Your task to perform on an android device: change keyboard looks Image 0: 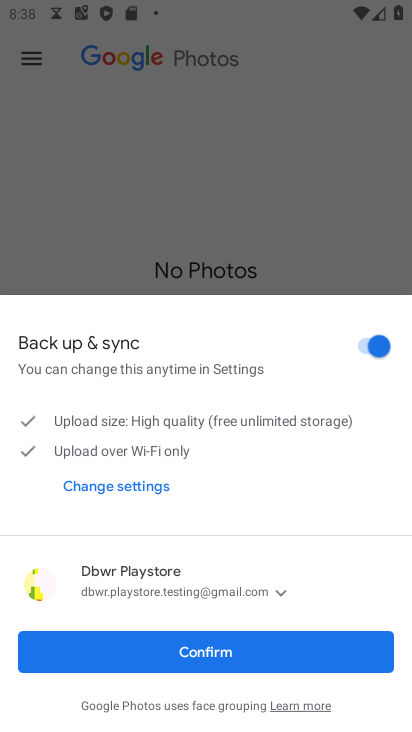
Step 0: press home button
Your task to perform on an android device: change keyboard looks Image 1: 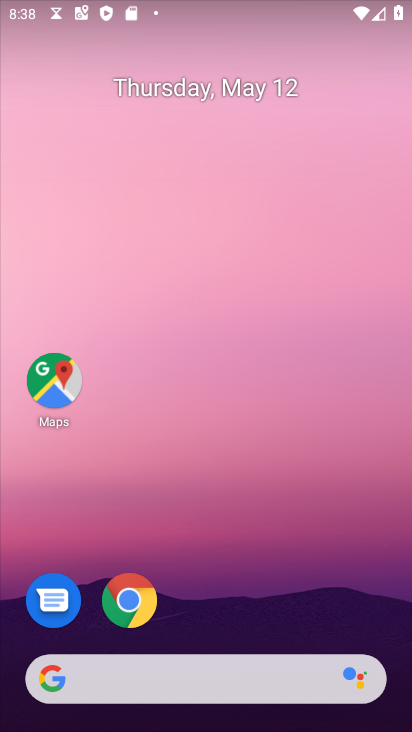
Step 1: drag from (260, 243) to (251, 162)
Your task to perform on an android device: change keyboard looks Image 2: 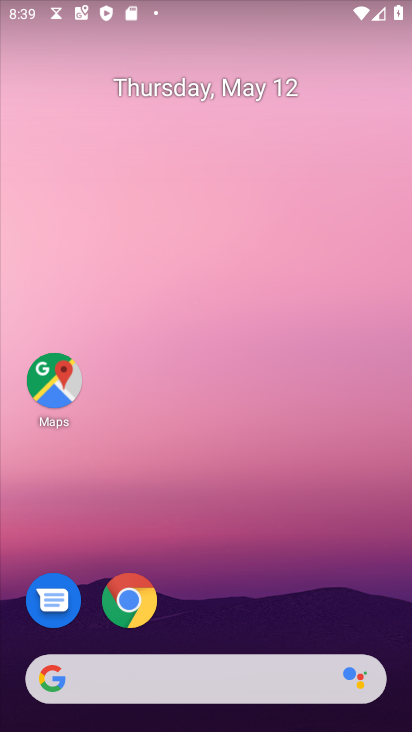
Step 2: drag from (233, 584) to (205, 265)
Your task to perform on an android device: change keyboard looks Image 3: 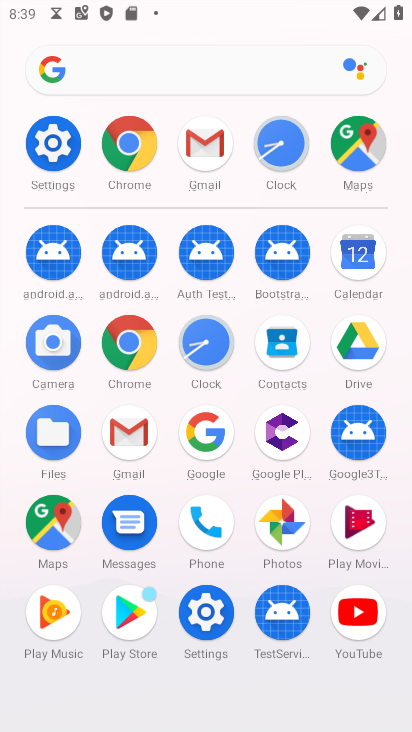
Step 3: drag from (238, 568) to (249, 239)
Your task to perform on an android device: change keyboard looks Image 4: 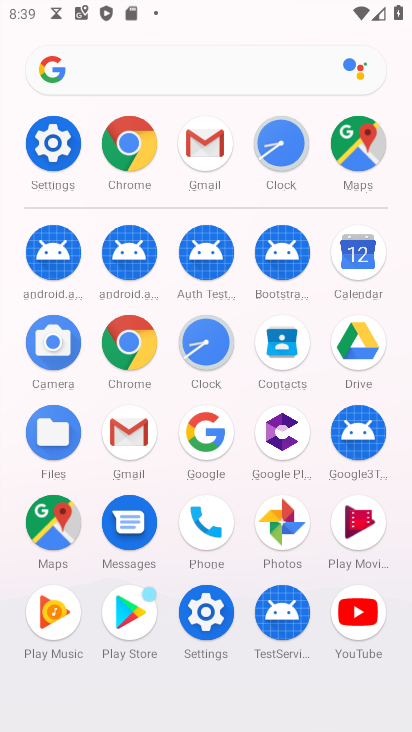
Step 4: click (59, 137)
Your task to perform on an android device: change keyboard looks Image 5: 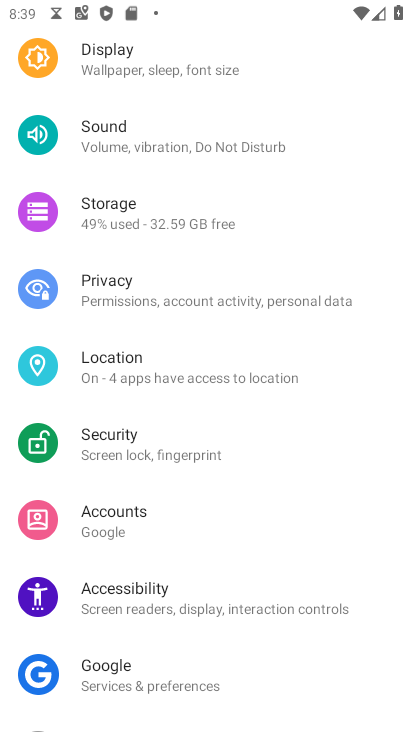
Step 5: drag from (168, 646) to (187, 343)
Your task to perform on an android device: change keyboard looks Image 6: 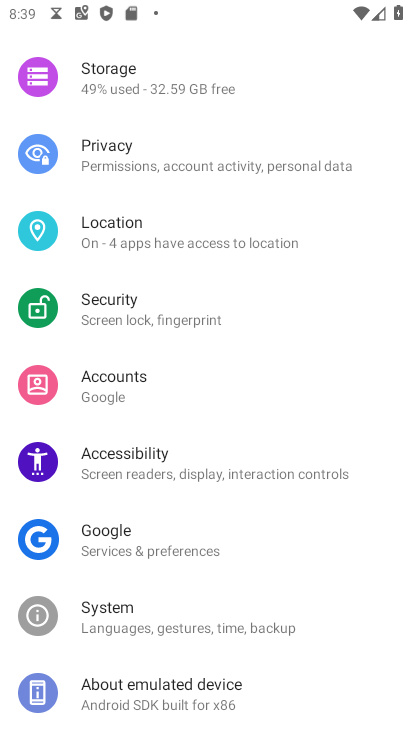
Step 6: click (164, 627)
Your task to perform on an android device: change keyboard looks Image 7: 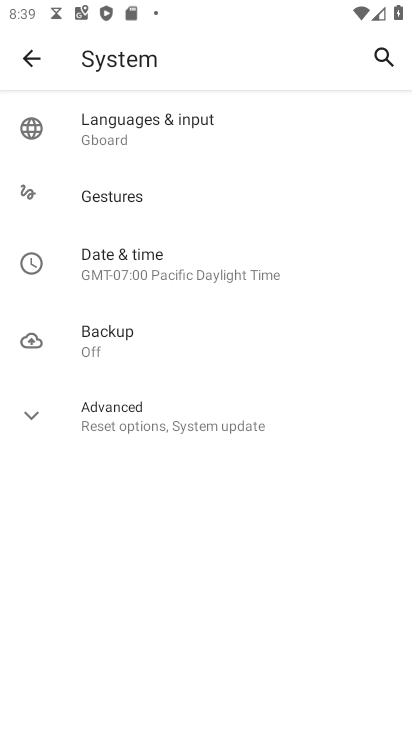
Step 7: click (128, 142)
Your task to perform on an android device: change keyboard looks Image 8: 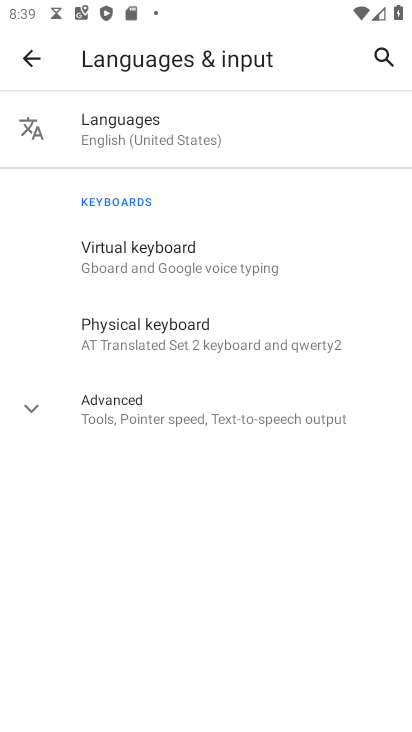
Step 8: click (150, 264)
Your task to perform on an android device: change keyboard looks Image 9: 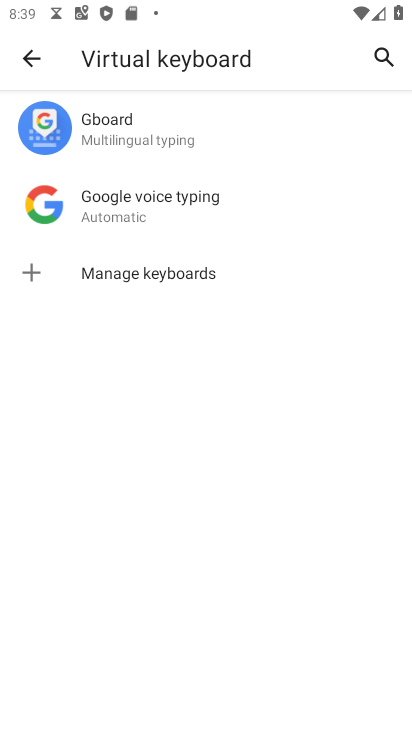
Step 9: click (99, 132)
Your task to perform on an android device: change keyboard looks Image 10: 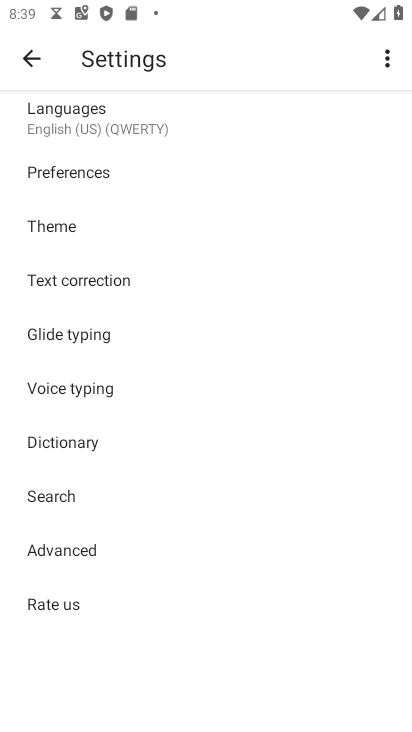
Step 10: click (65, 227)
Your task to perform on an android device: change keyboard looks Image 11: 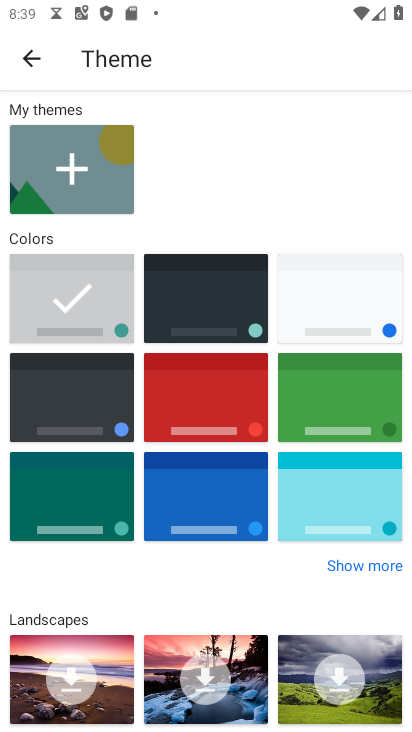
Step 11: click (212, 305)
Your task to perform on an android device: change keyboard looks Image 12: 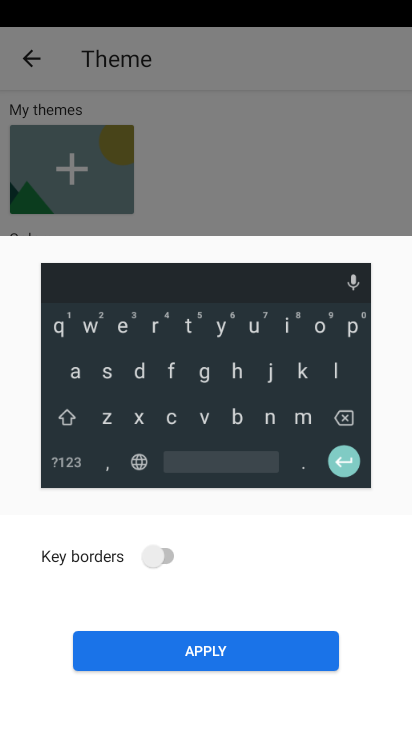
Step 12: click (227, 661)
Your task to perform on an android device: change keyboard looks Image 13: 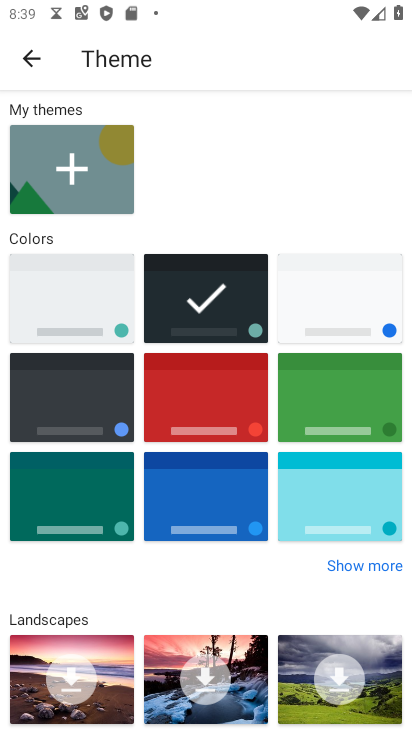
Step 13: task complete